Your task to perform on an android device: turn off smart reply in the gmail app Image 0: 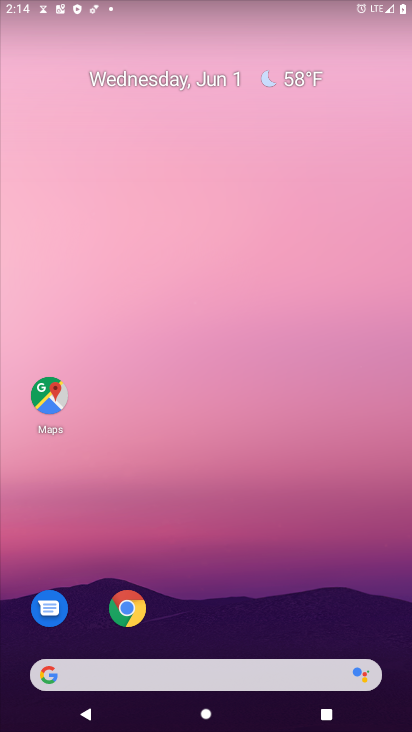
Step 0: drag from (226, 580) to (210, 256)
Your task to perform on an android device: turn off smart reply in the gmail app Image 1: 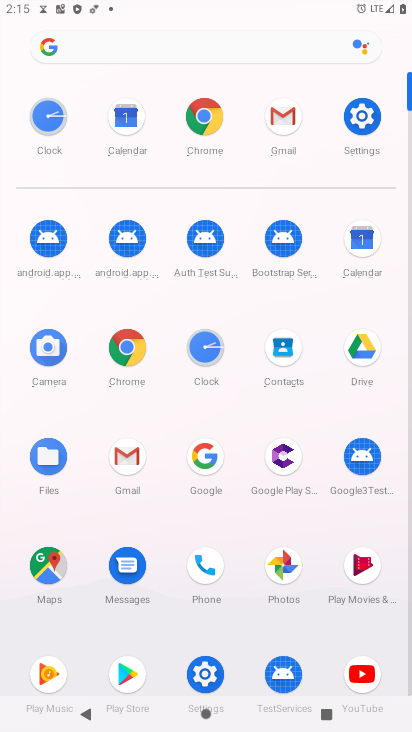
Step 1: click (288, 108)
Your task to perform on an android device: turn off smart reply in the gmail app Image 2: 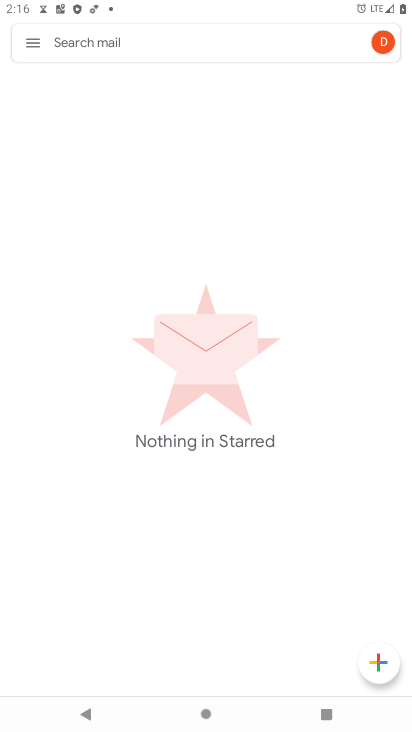
Step 2: click (21, 48)
Your task to perform on an android device: turn off smart reply in the gmail app Image 3: 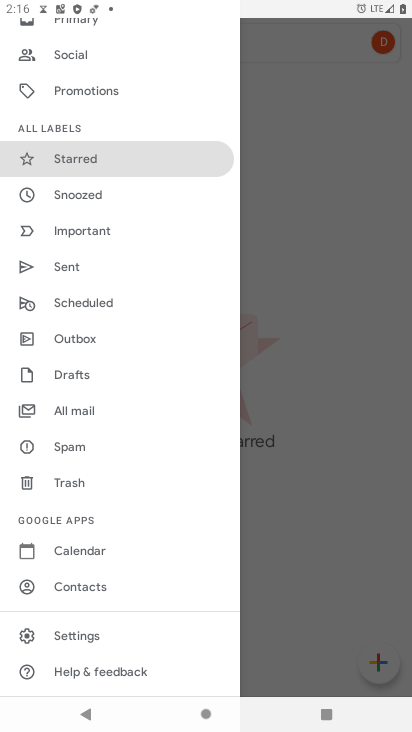
Step 3: click (91, 648)
Your task to perform on an android device: turn off smart reply in the gmail app Image 4: 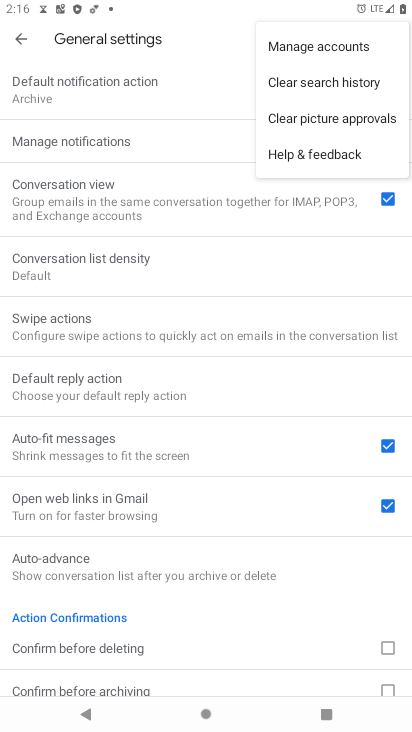
Step 4: task complete